Your task to perform on an android device: open app "WhatsApp Messenger" (install if not already installed) and go to login screen Image 0: 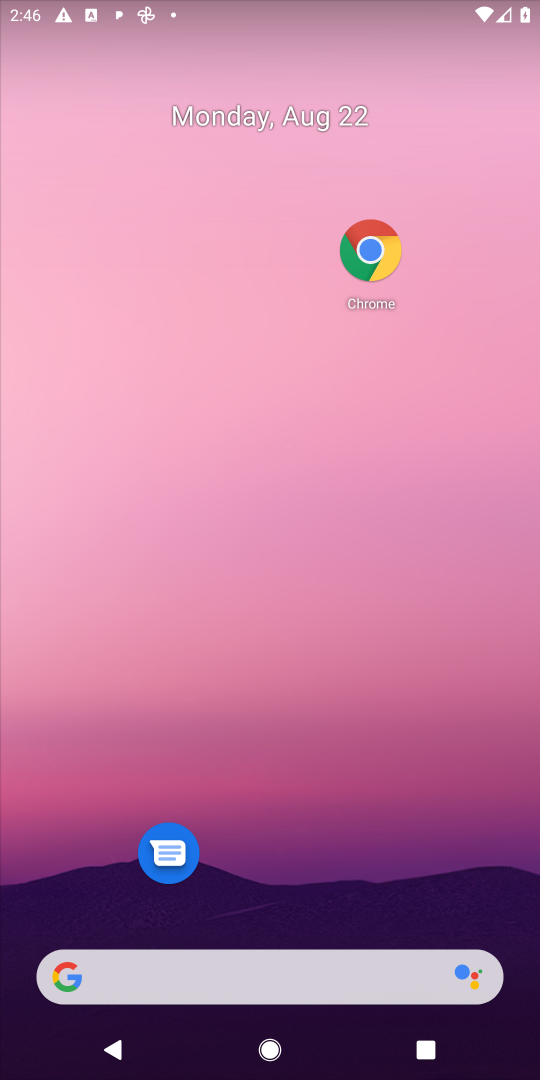
Step 0: drag from (307, 843) to (218, 464)
Your task to perform on an android device: open app "WhatsApp Messenger" (install if not already installed) and go to login screen Image 1: 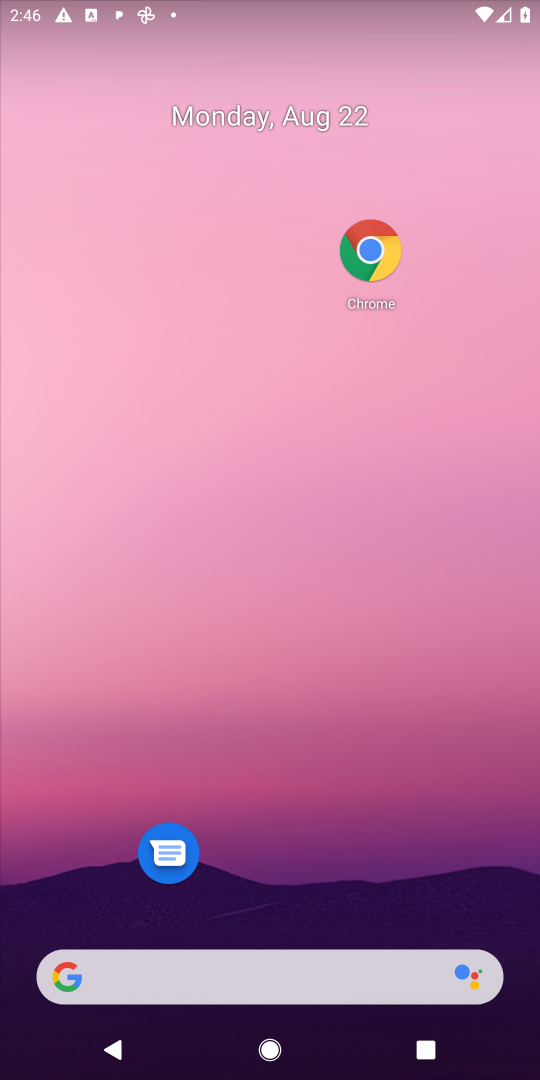
Step 1: drag from (242, 867) to (288, 409)
Your task to perform on an android device: open app "WhatsApp Messenger" (install if not already installed) and go to login screen Image 2: 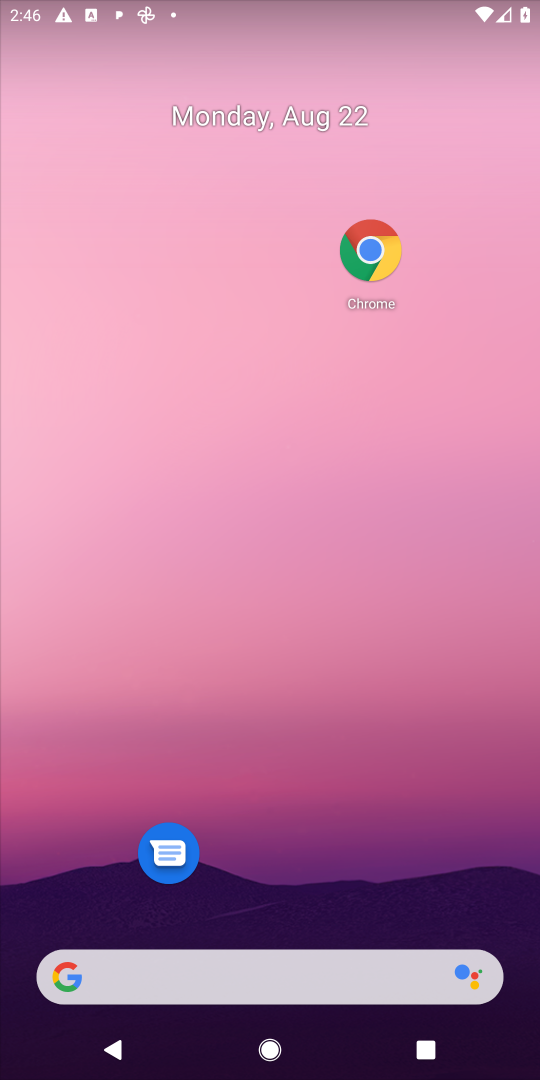
Step 2: drag from (250, 827) to (225, 349)
Your task to perform on an android device: open app "WhatsApp Messenger" (install if not already installed) and go to login screen Image 3: 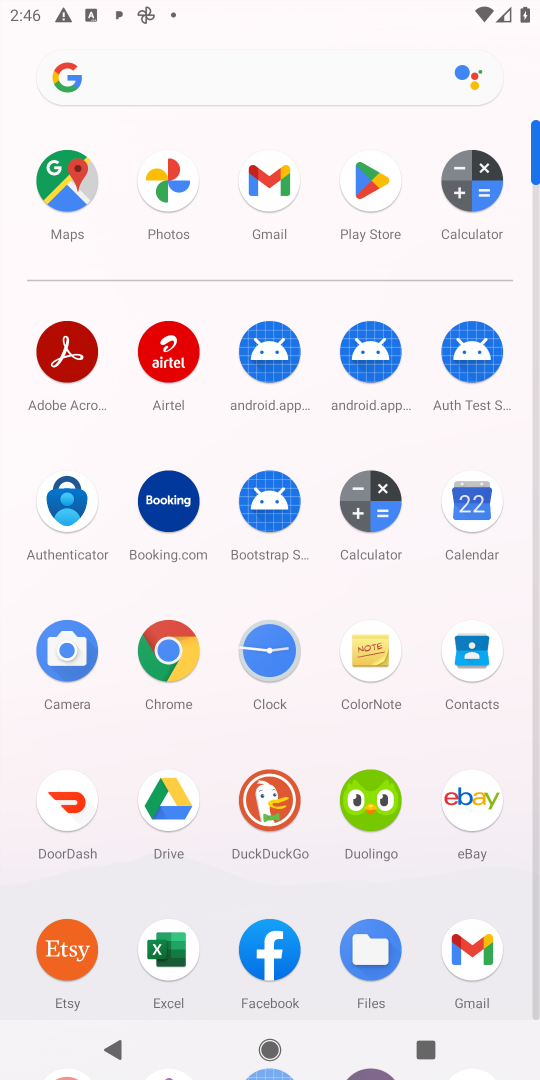
Step 3: click (355, 173)
Your task to perform on an android device: open app "WhatsApp Messenger" (install if not already installed) and go to login screen Image 4: 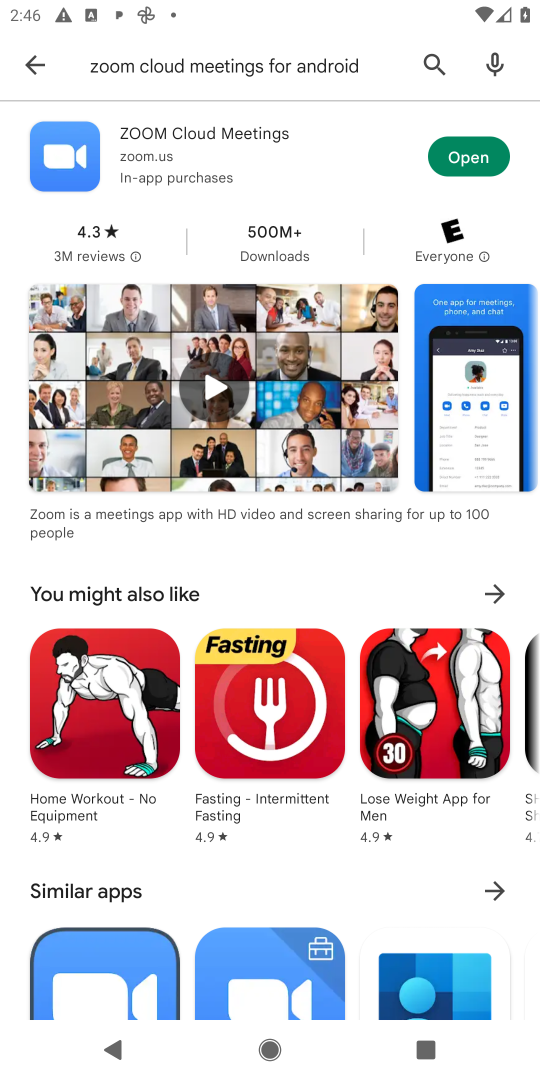
Step 4: click (23, 70)
Your task to perform on an android device: open app "WhatsApp Messenger" (install if not already installed) and go to login screen Image 5: 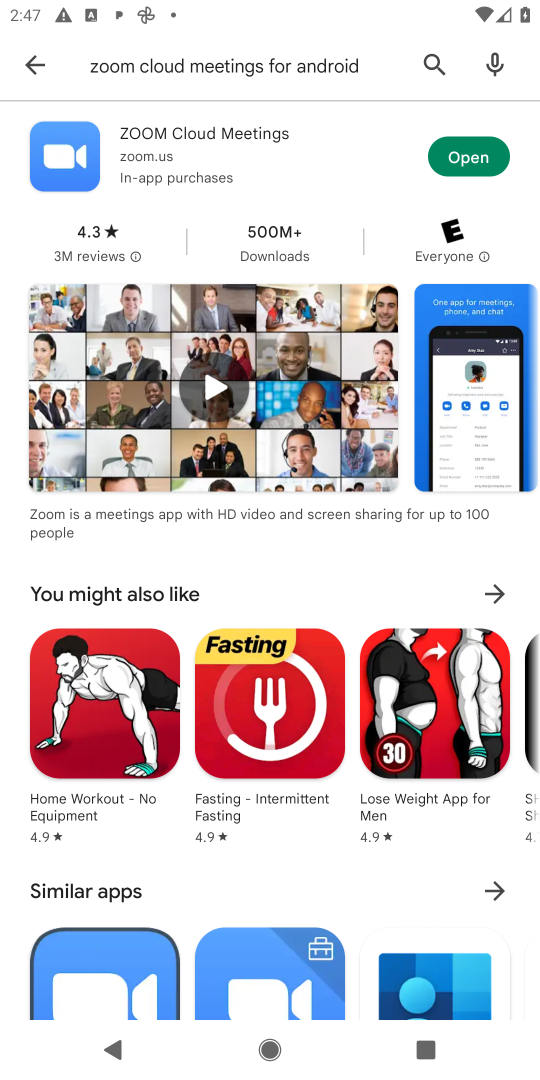
Step 5: click (39, 52)
Your task to perform on an android device: open app "WhatsApp Messenger" (install if not already installed) and go to login screen Image 6: 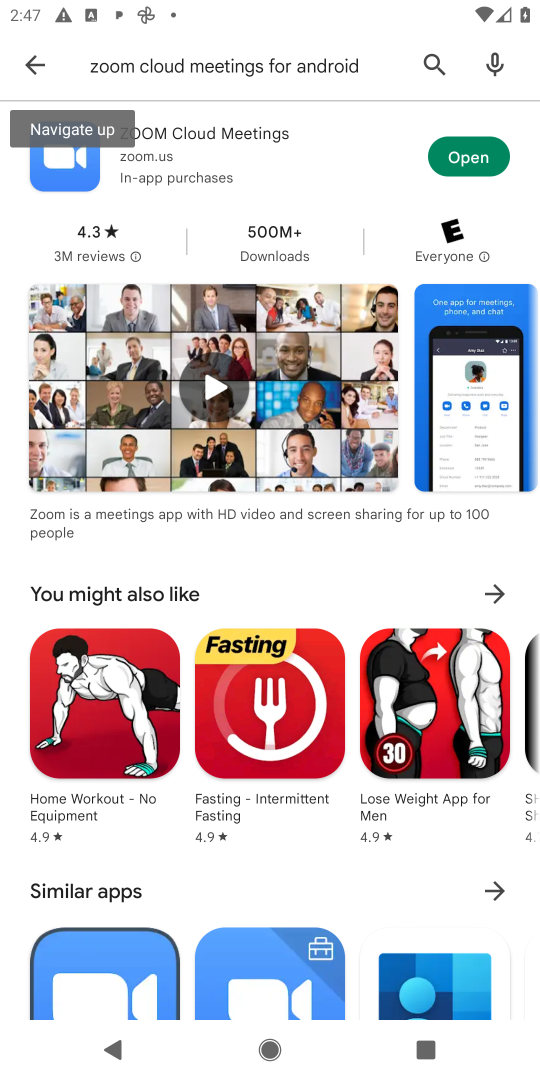
Step 6: click (39, 52)
Your task to perform on an android device: open app "WhatsApp Messenger" (install if not already installed) and go to login screen Image 7: 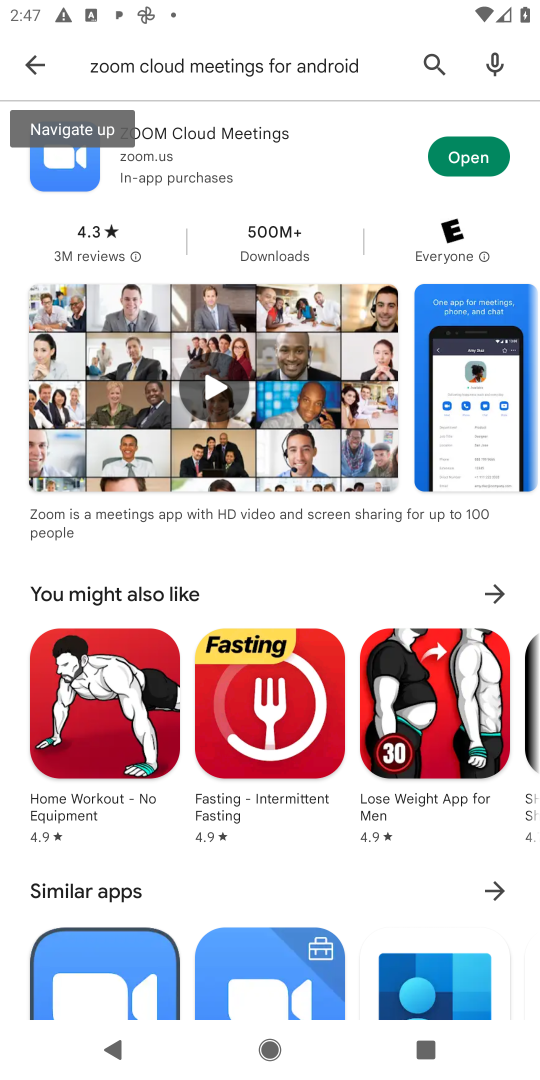
Step 7: click (39, 52)
Your task to perform on an android device: open app "WhatsApp Messenger" (install if not already installed) and go to login screen Image 8: 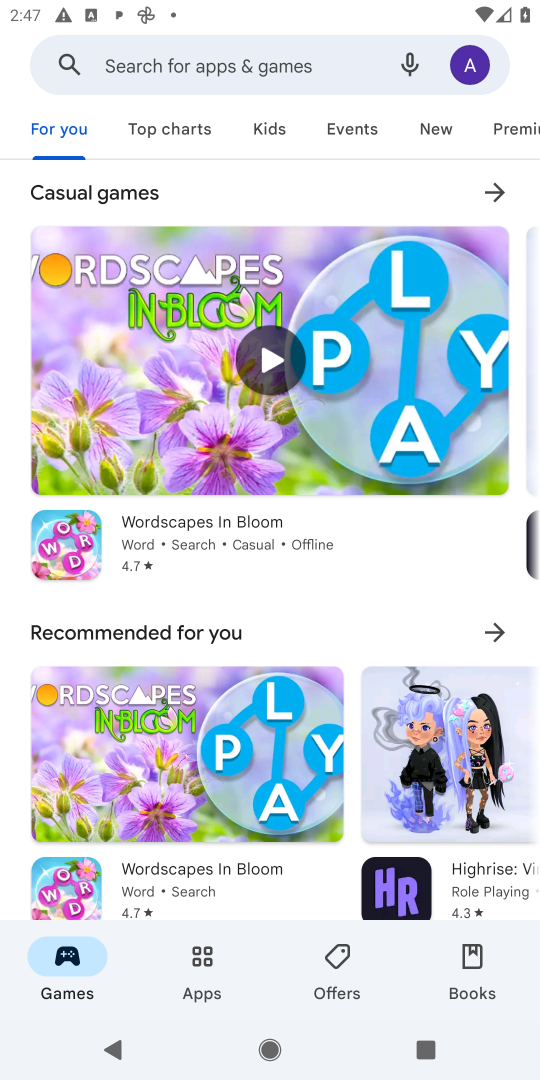
Step 8: click (425, 61)
Your task to perform on an android device: open app "WhatsApp Messenger" (install if not already installed) and go to login screen Image 9: 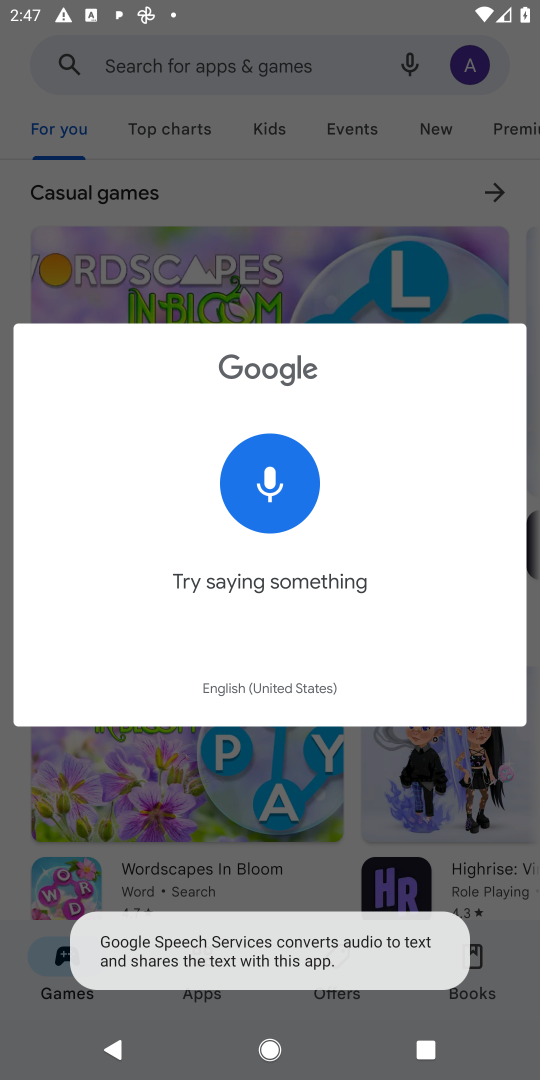
Step 9: click (234, 63)
Your task to perform on an android device: open app "WhatsApp Messenger" (install if not already installed) and go to login screen Image 10: 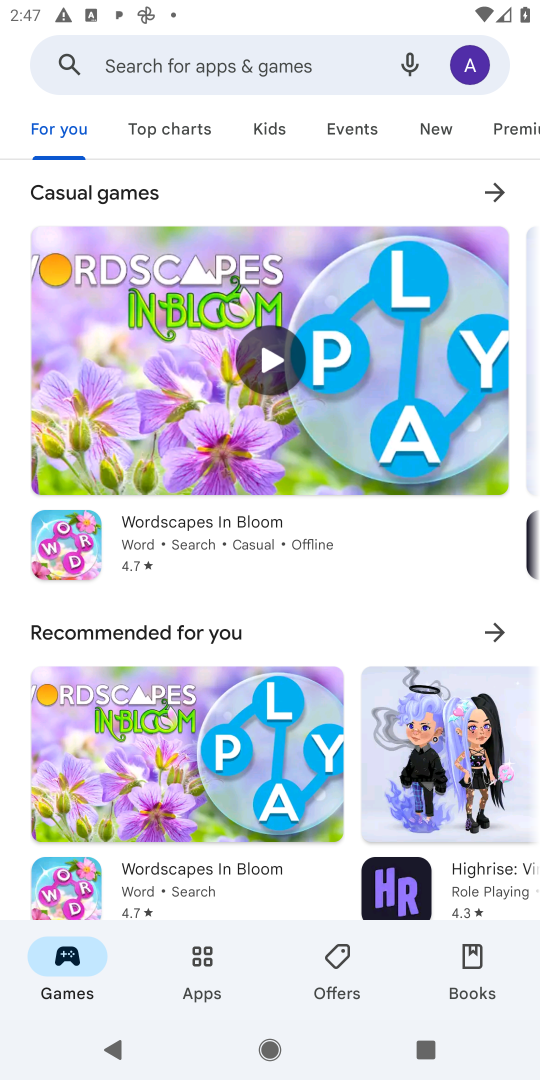
Step 10: click (291, 60)
Your task to perform on an android device: open app "WhatsApp Messenger" (install if not already installed) and go to login screen Image 11: 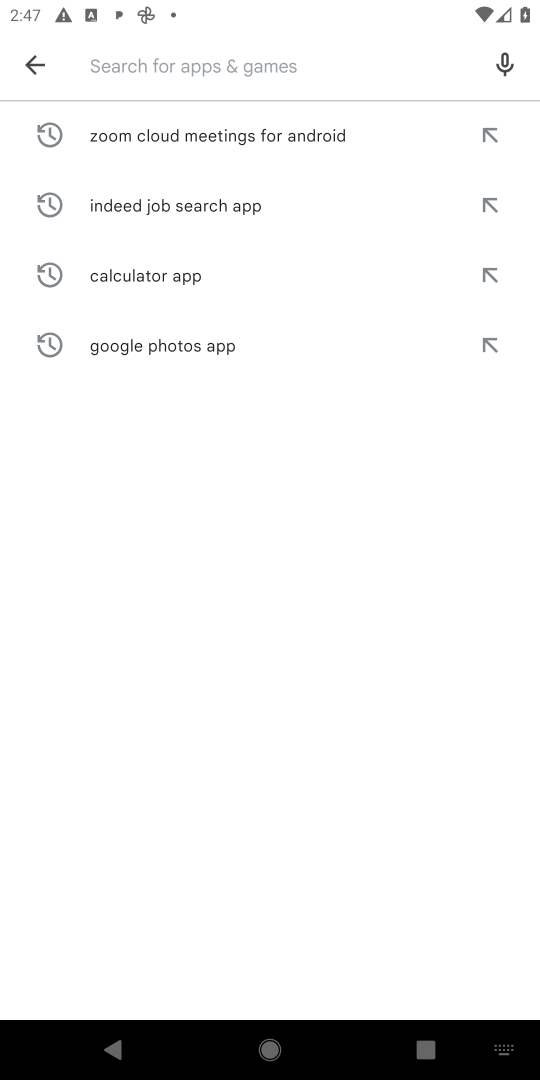
Step 11: type "WhatsApp Messenger "
Your task to perform on an android device: open app "WhatsApp Messenger" (install if not already installed) and go to login screen Image 12: 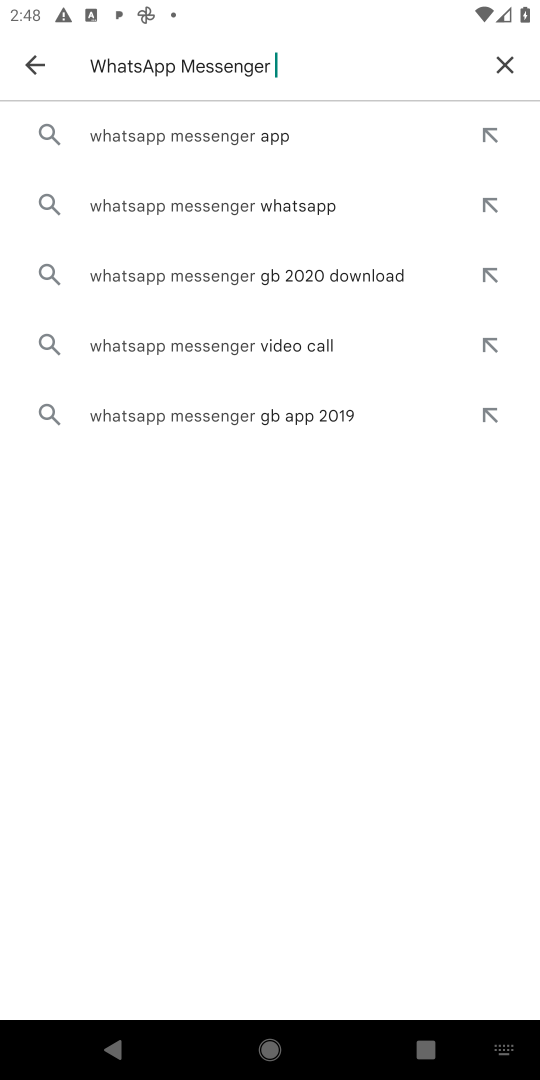
Step 12: click (160, 129)
Your task to perform on an android device: open app "WhatsApp Messenger" (install if not already installed) and go to login screen Image 13: 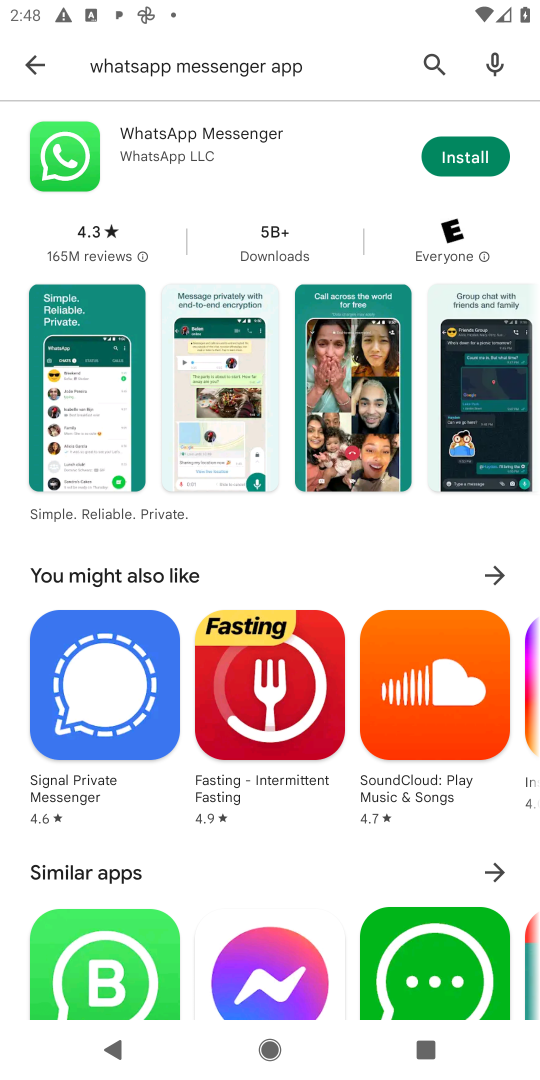
Step 13: click (474, 156)
Your task to perform on an android device: open app "WhatsApp Messenger" (install if not already installed) and go to login screen Image 14: 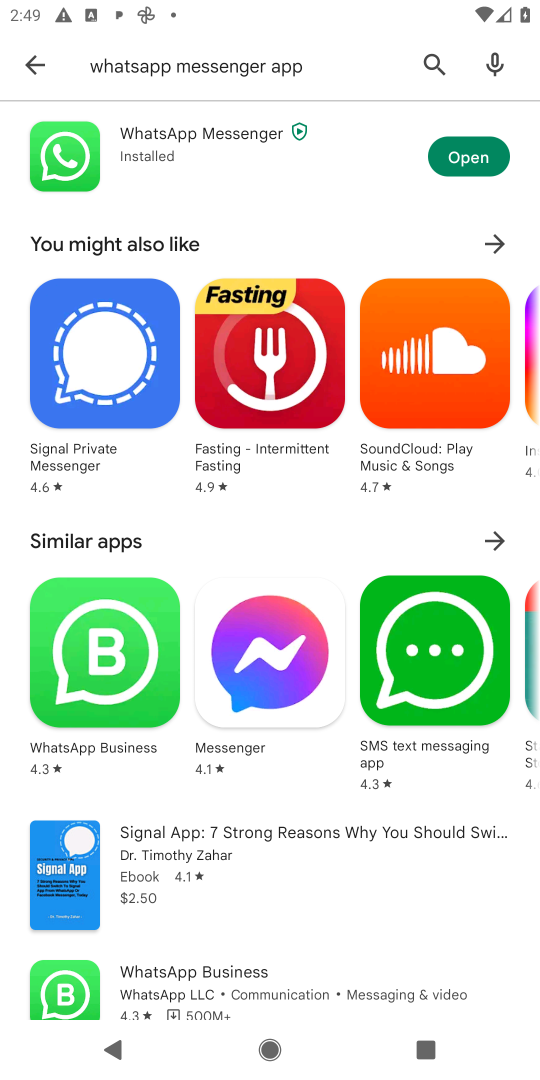
Step 14: click (450, 143)
Your task to perform on an android device: open app "WhatsApp Messenger" (install if not already installed) and go to login screen Image 15: 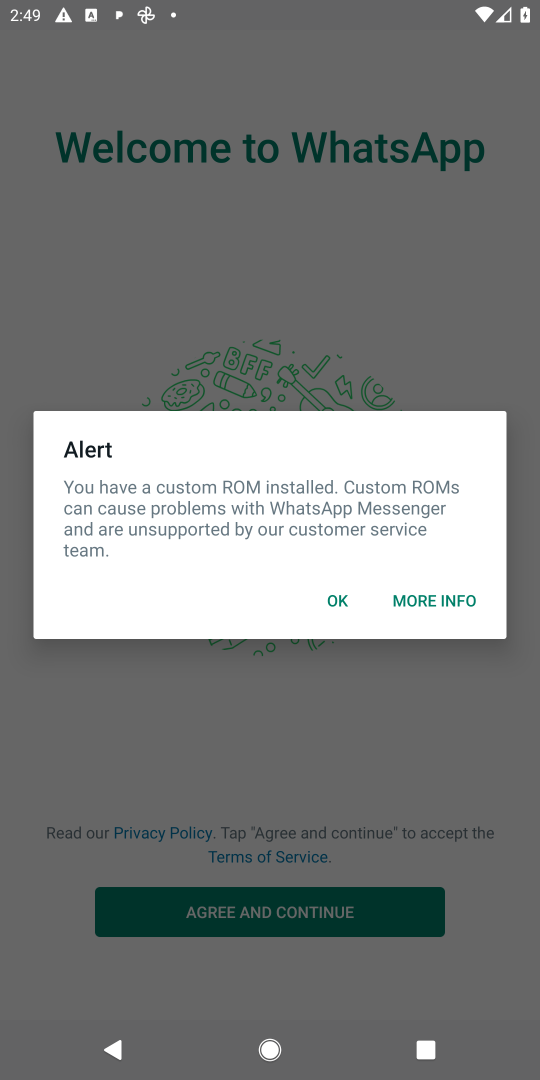
Step 15: task complete